Your task to perform on an android device: stop showing notifications on the lock screen Image 0: 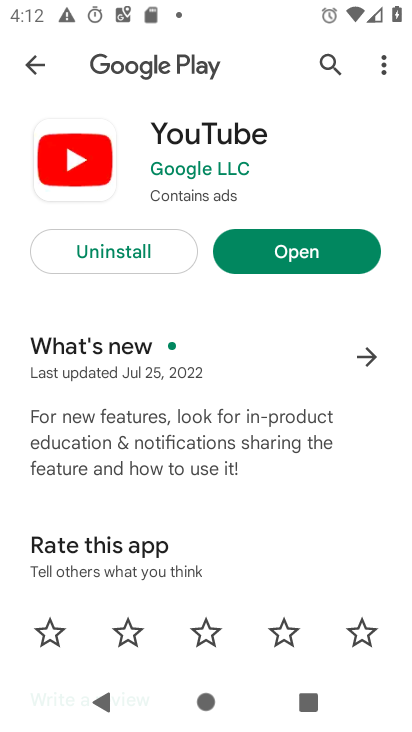
Step 0: press home button
Your task to perform on an android device: stop showing notifications on the lock screen Image 1: 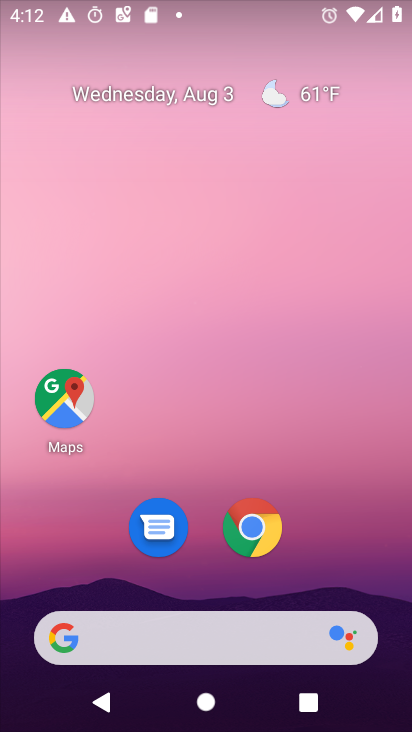
Step 1: drag from (338, 525) to (316, 86)
Your task to perform on an android device: stop showing notifications on the lock screen Image 2: 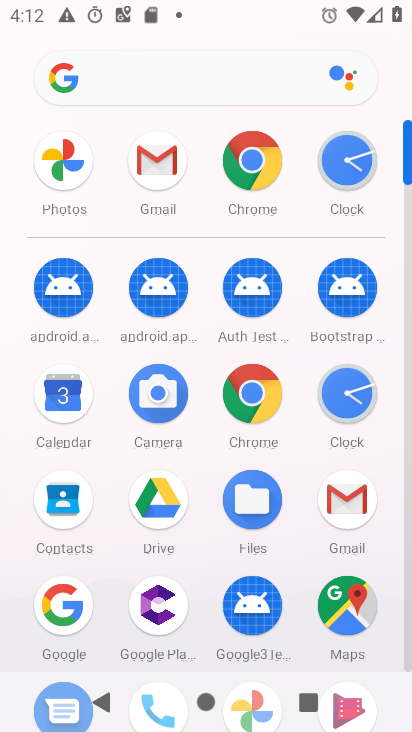
Step 2: drag from (199, 558) to (273, 157)
Your task to perform on an android device: stop showing notifications on the lock screen Image 3: 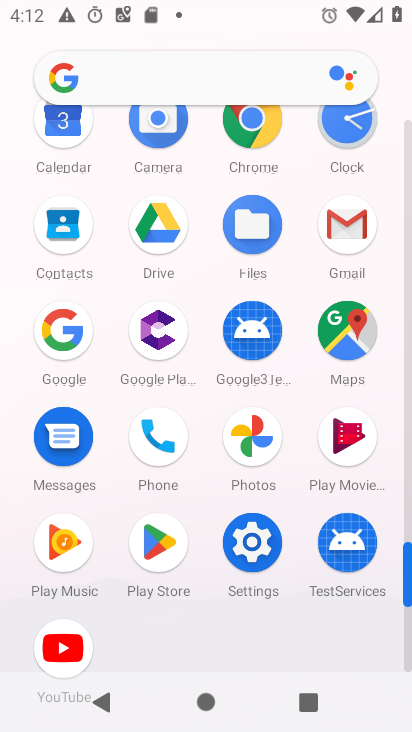
Step 3: click (247, 547)
Your task to perform on an android device: stop showing notifications on the lock screen Image 4: 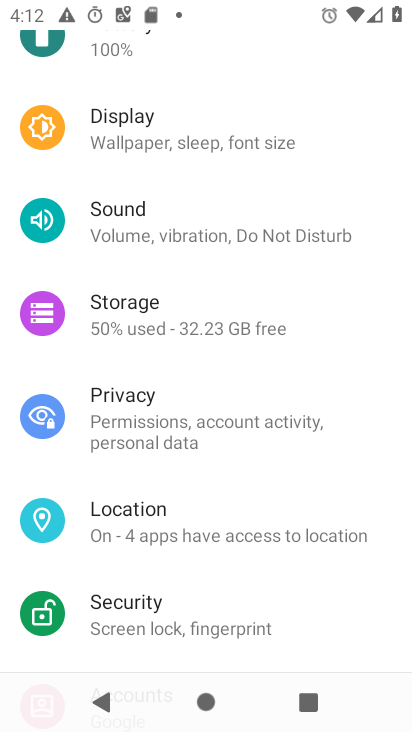
Step 4: drag from (261, 227) to (236, 582)
Your task to perform on an android device: stop showing notifications on the lock screen Image 5: 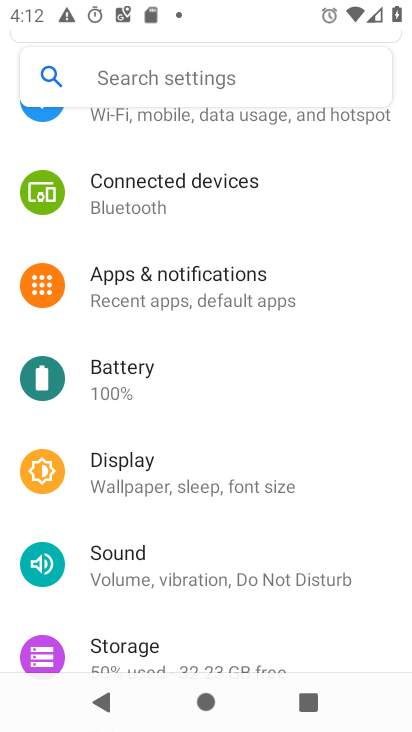
Step 5: click (198, 275)
Your task to perform on an android device: stop showing notifications on the lock screen Image 6: 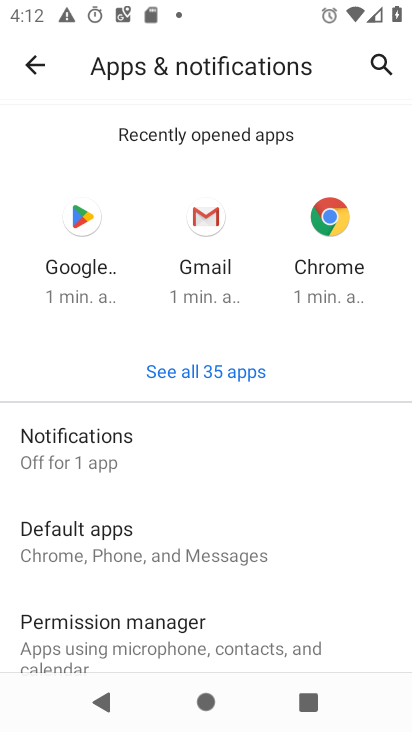
Step 6: click (116, 443)
Your task to perform on an android device: stop showing notifications on the lock screen Image 7: 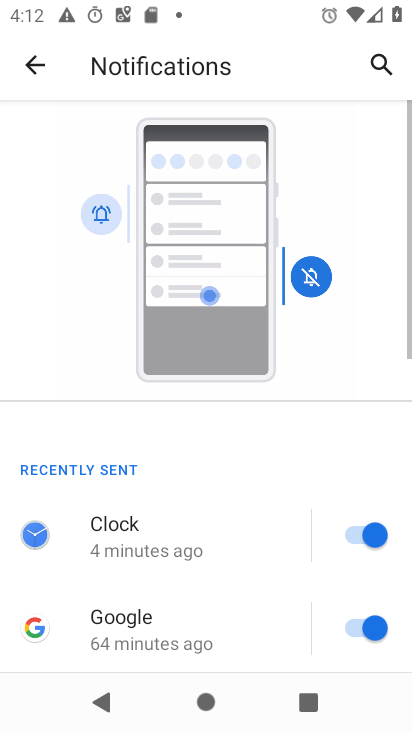
Step 7: drag from (258, 485) to (324, 64)
Your task to perform on an android device: stop showing notifications on the lock screen Image 8: 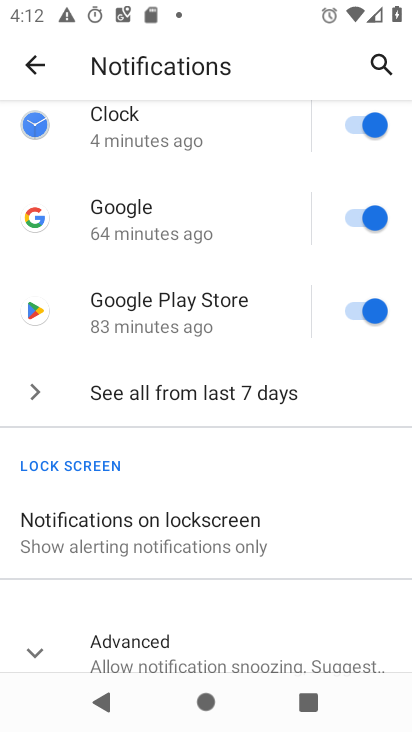
Step 8: click (156, 517)
Your task to perform on an android device: stop showing notifications on the lock screen Image 9: 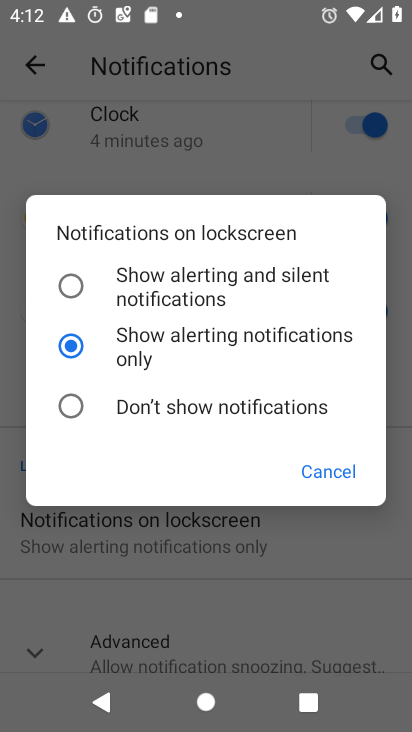
Step 9: click (183, 412)
Your task to perform on an android device: stop showing notifications on the lock screen Image 10: 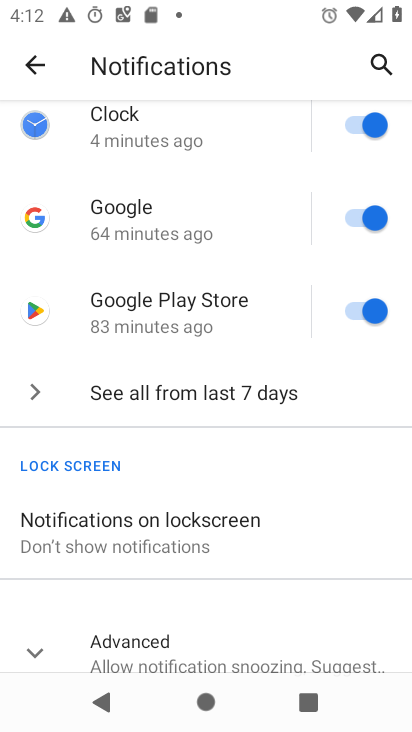
Step 10: task complete